Your task to perform on an android device: turn pop-ups on in chrome Image 0: 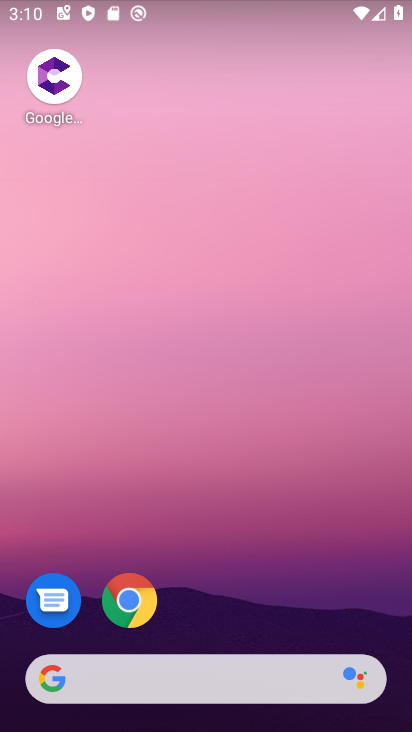
Step 0: click (138, 595)
Your task to perform on an android device: turn pop-ups on in chrome Image 1: 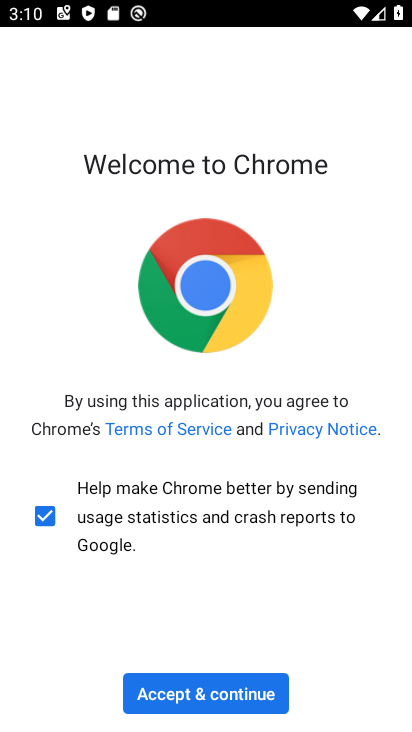
Step 1: click (148, 711)
Your task to perform on an android device: turn pop-ups on in chrome Image 2: 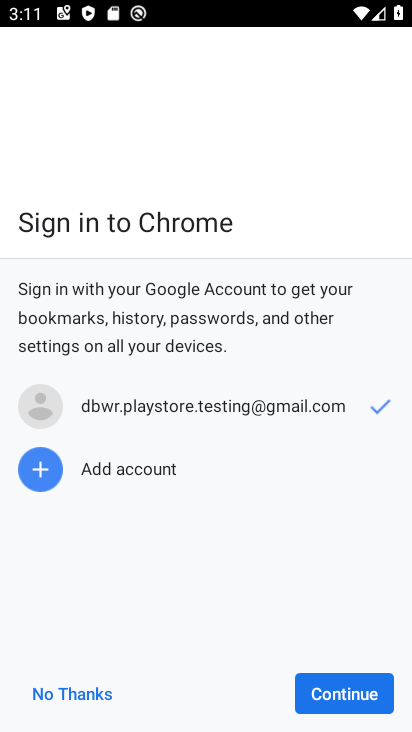
Step 2: click (341, 678)
Your task to perform on an android device: turn pop-ups on in chrome Image 3: 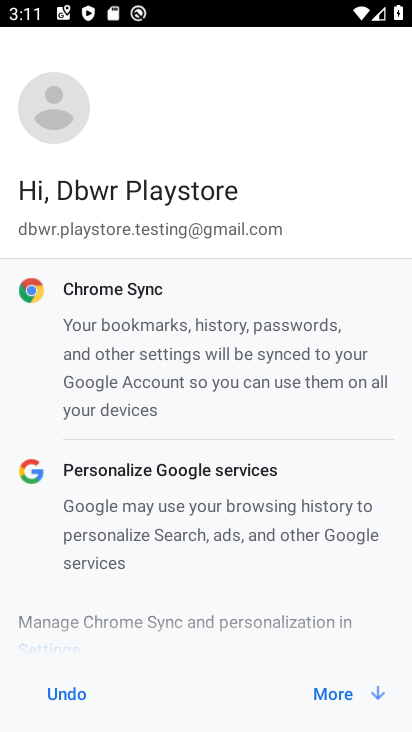
Step 3: click (345, 689)
Your task to perform on an android device: turn pop-ups on in chrome Image 4: 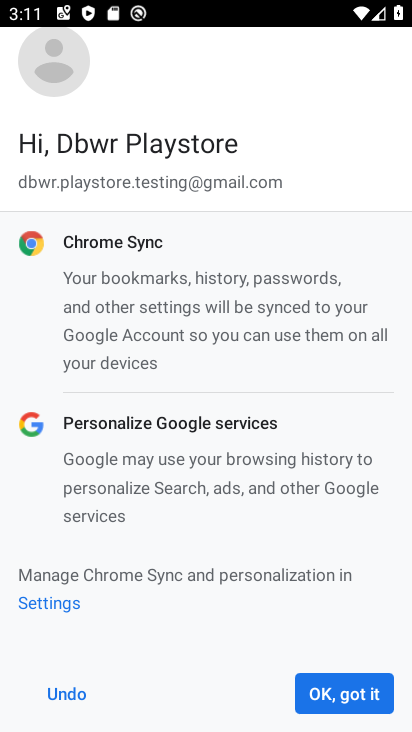
Step 4: click (363, 699)
Your task to perform on an android device: turn pop-ups on in chrome Image 5: 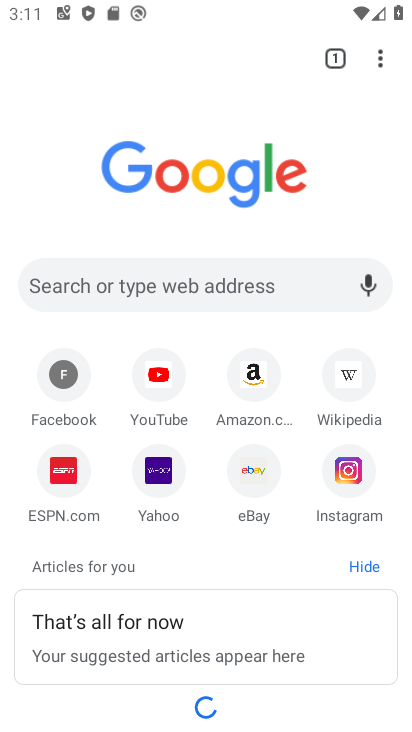
Step 5: click (390, 58)
Your task to perform on an android device: turn pop-ups on in chrome Image 6: 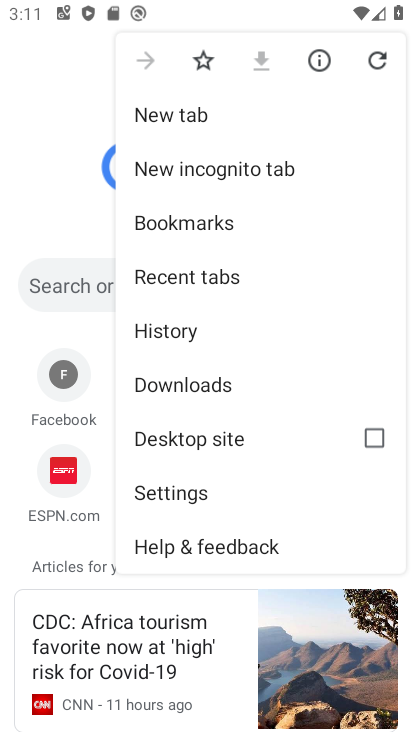
Step 6: click (277, 482)
Your task to perform on an android device: turn pop-ups on in chrome Image 7: 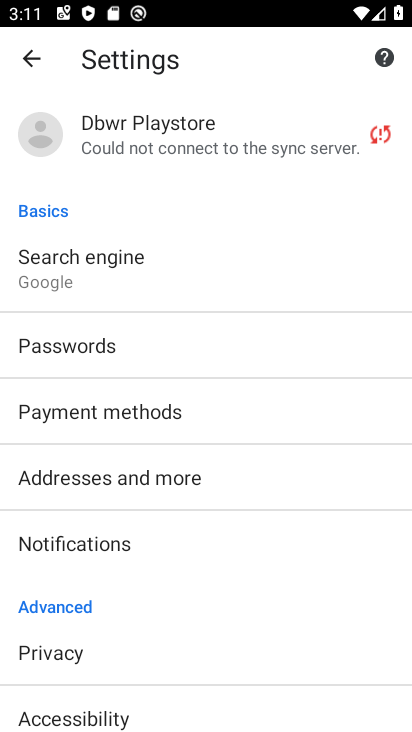
Step 7: drag from (249, 666) to (244, 188)
Your task to perform on an android device: turn pop-ups on in chrome Image 8: 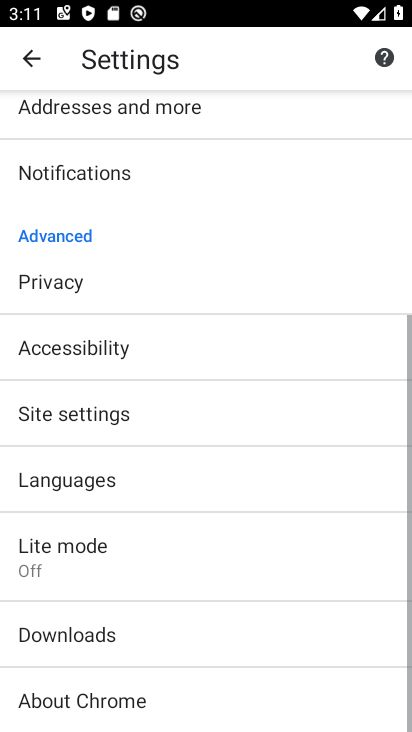
Step 8: click (241, 413)
Your task to perform on an android device: turn pop-ups on in chrome Image 9: 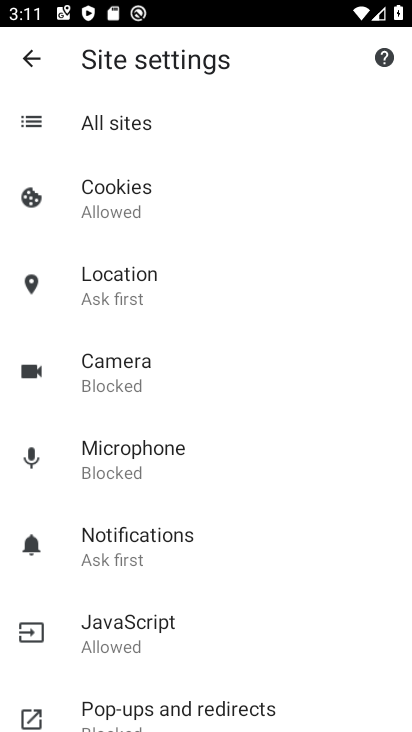
Step 9: click (277, 719)
Your task to perform on an android device: turn pop-ups on in chrome Image 10: 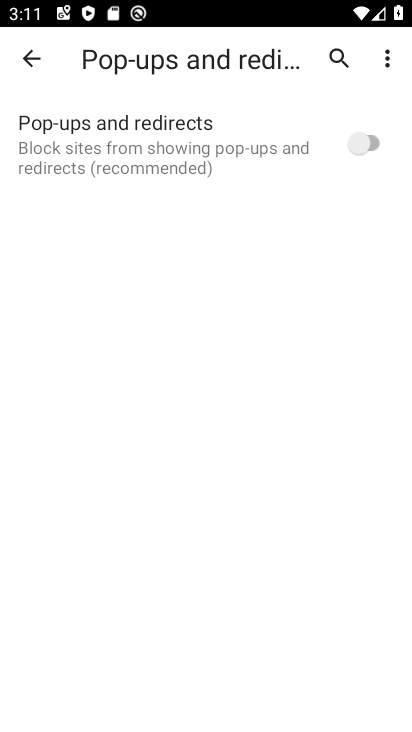
Step 10: click (369, 129)
Your task to perform on an android device: turn pop-ups on in chrome Image 11: 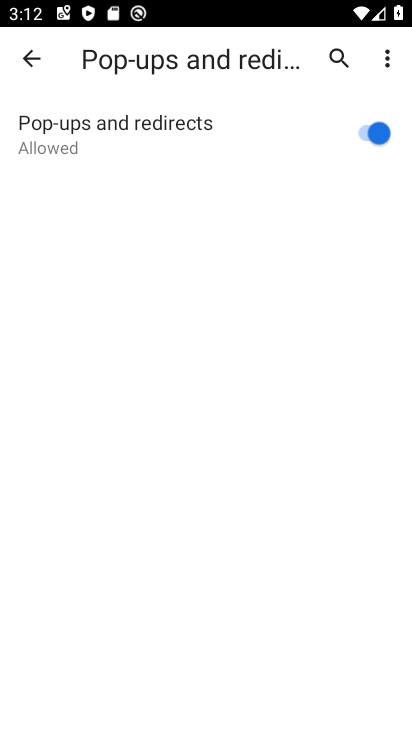
Step 11: task complete